Your task to perform on an android device: turn smart compose on in the gmail app Image 0: 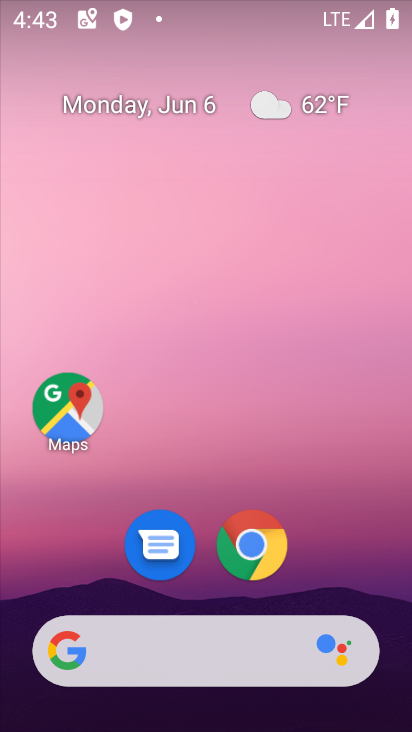
Step 0: drag from (214, 727) to (215, 240)
Your task to perform on an android device: turn smart compose on in the gmail app Image 1: 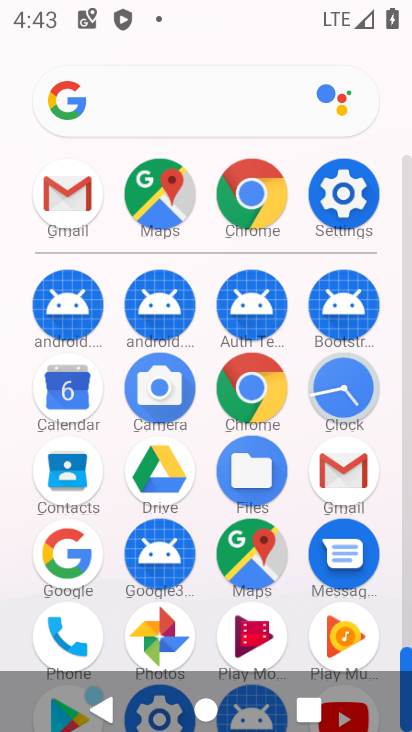
Step 1: click (345, 469)
Your task to perform on an android device: turn smart compose on in the gmail app Image 2: 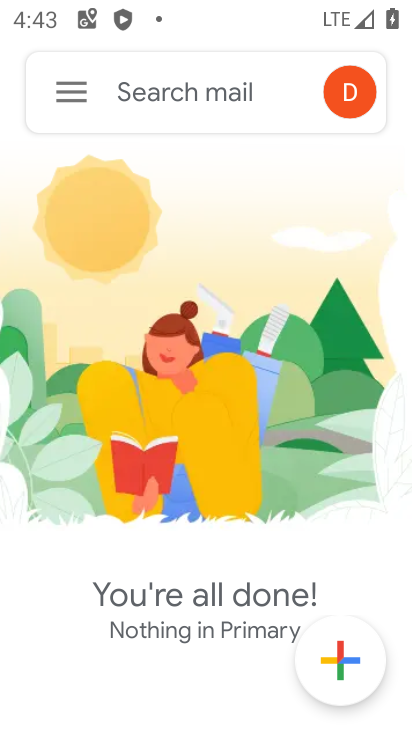
Step 2: click (81, 78)
Your task to perform on an android device: turn smart compose on in the gmail app Image 3: 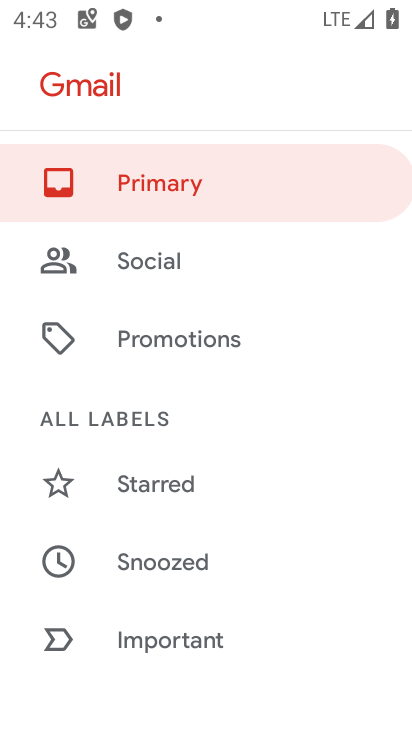
Step 3: drag from (186, 696) to (179, 179)
Your task to perform on an android device: turn smart compose on in the gmail app Image 4: 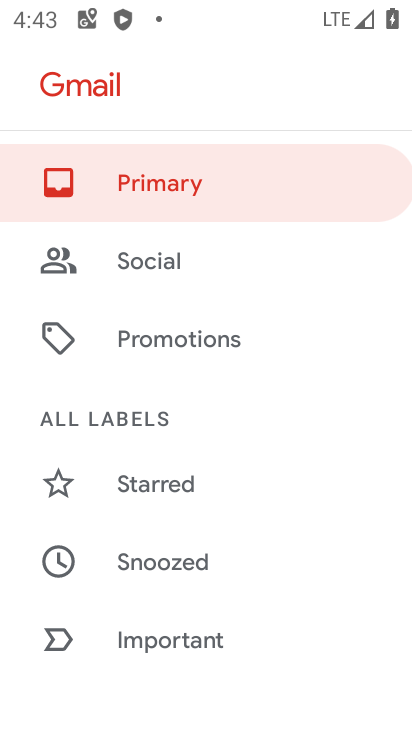
Step 4: drag from (237, 647) to (232, 239)
Your task to perform on an android device: turn smart compose on in the gmail app Image 5: 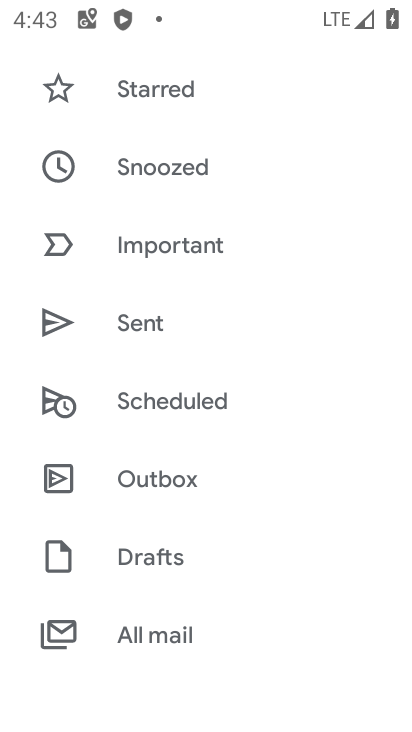
Step 5: drag from (204, 653) to (199, 248)
Your task to perform on an android device: turn smart compose on in the gmail app Image 6: 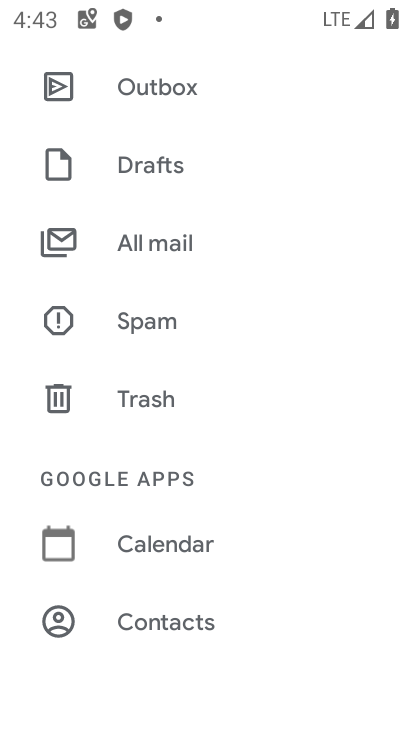
Step 6: drag from (200, 654) to (196, 153)
Your task to perform on an android device: turn smart compose on in the gmail app Image 7: 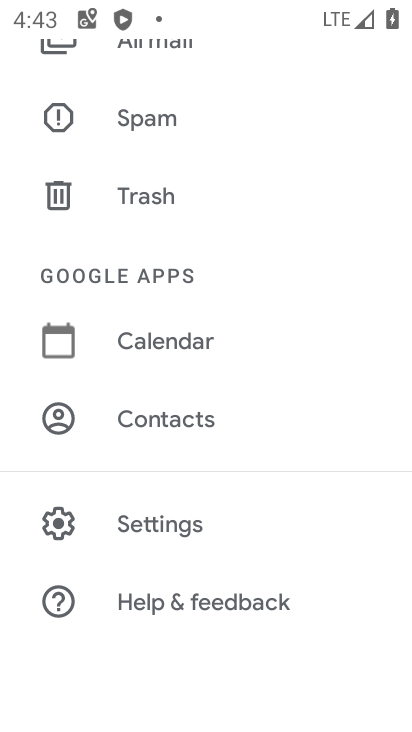
Step 7: click (163, 527)
Your task to perform on an android device: turn smart compose on in the gmail app Image 8: 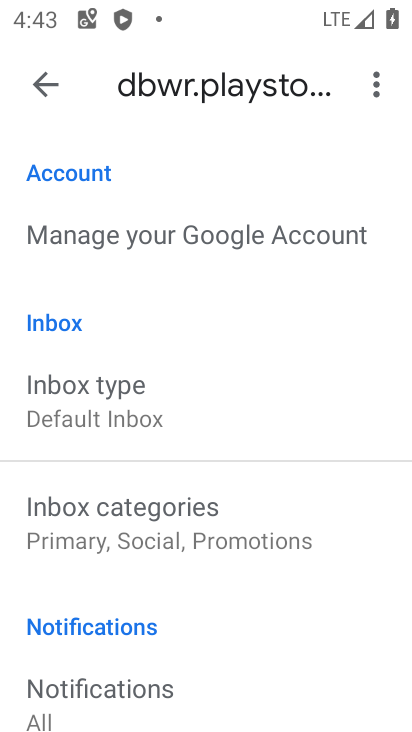
Step 8: drag from (145, 720) to (146, 360)
Your task to perform on an android device: turn smart compose on in the gmail app Image 9: 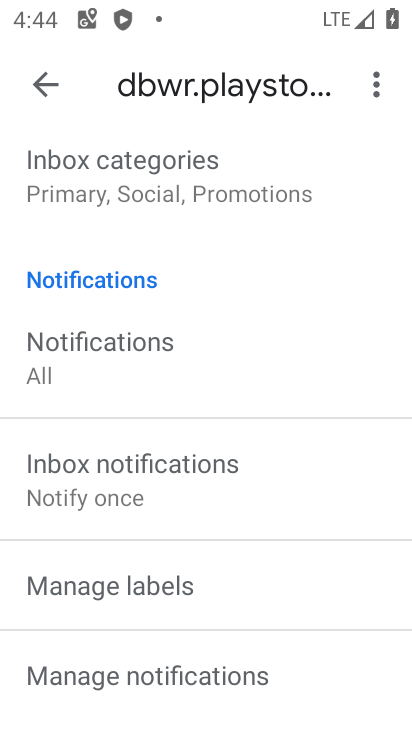
Step 9: click (148, 585)
Your task to perform on an android device: turn smart compose on in the gmail app Image 10: 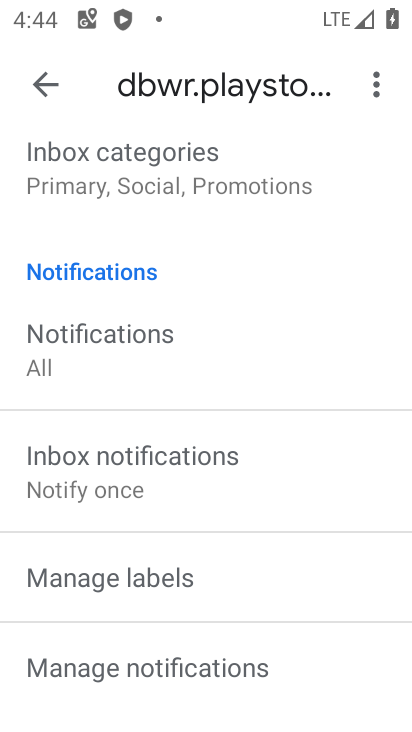
Step 10: task complete